Your task to perform on an android device: turn off notifications in google photos Image 0: 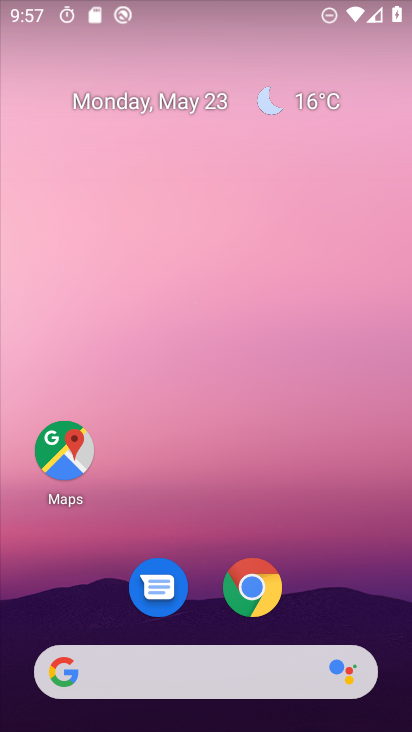
Step 0: drag from (193, 565) to (193, 77)
Your task to perform on an android device: turn off notifications in google photos Image 1: 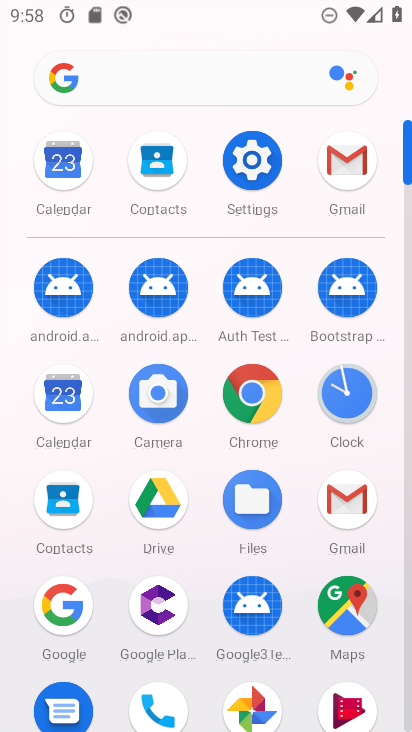
Step 1: click (255, 714)
Your task to perform on an android device: turn off notifications in google photos Image 2: 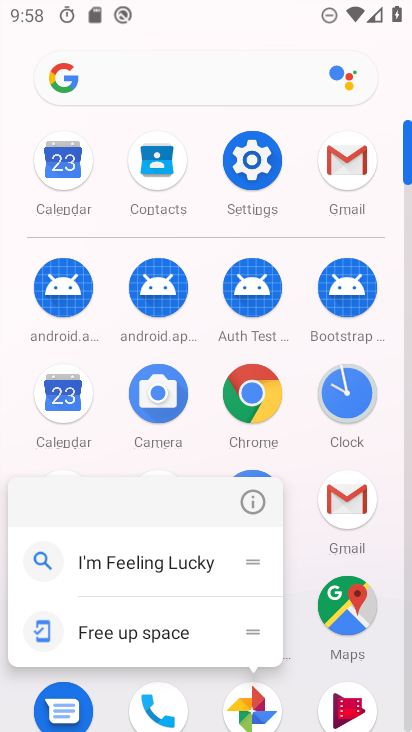
Step 2: click (251, 501)
Your task to perform on an android device: turn off notifications in google photos Image 3: 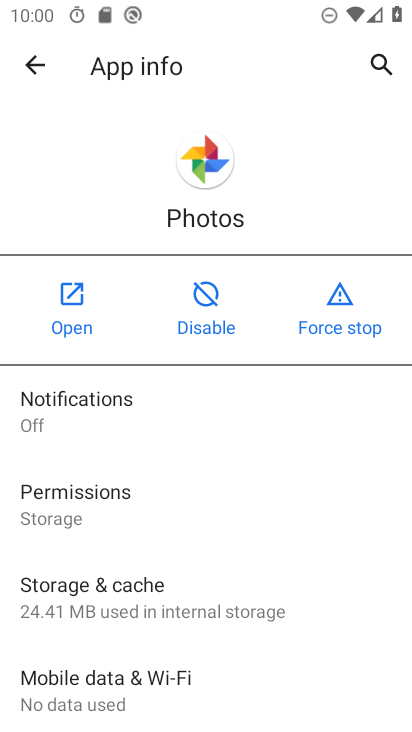
Step 3: task complete